Your task to perform on an android device: delete location history Image 0: 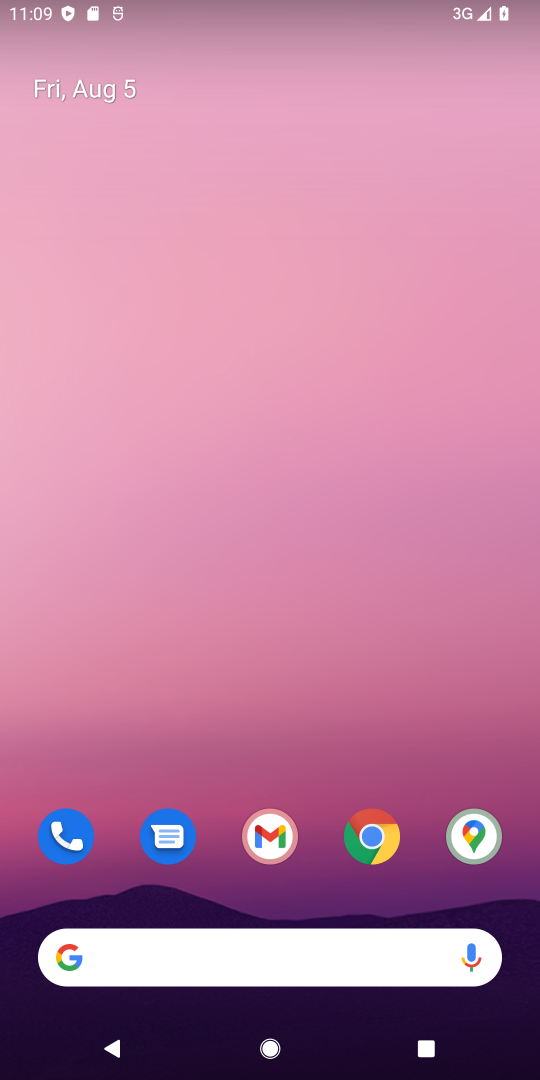
Step 0: drag from (312, 885) to (354, 219)
Your task to perform on an android device: delete location history Image 1: 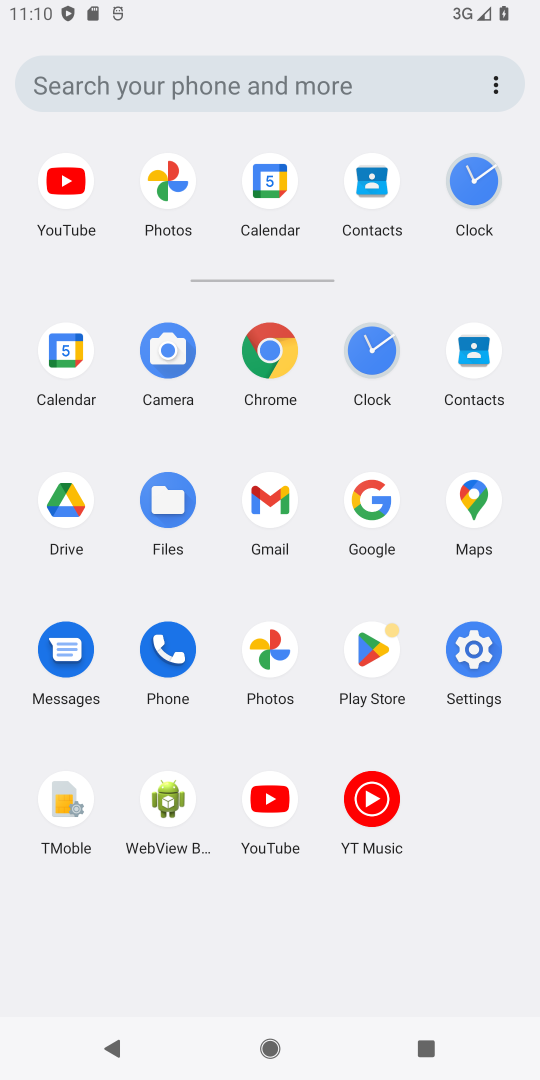
Step 1: click (484, 501)
Your task to perform on an android device: delete location history Image 2: 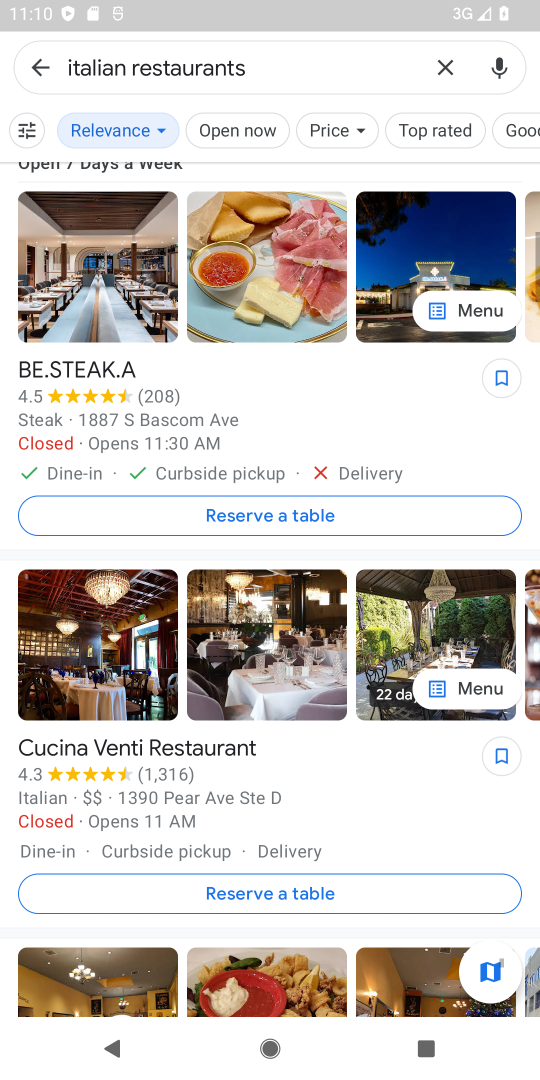
Step 2: click (37, 59)
Your task to perform on an android device: delete location history Image 3: 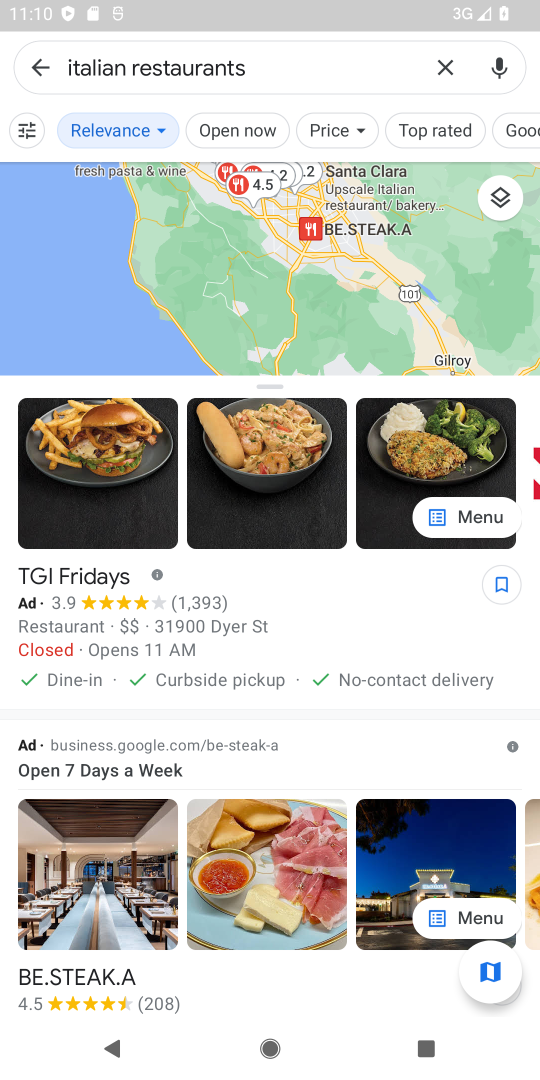
Step 3: click (45, 68)
Your task to perform on an android device: delete location history Image 4: 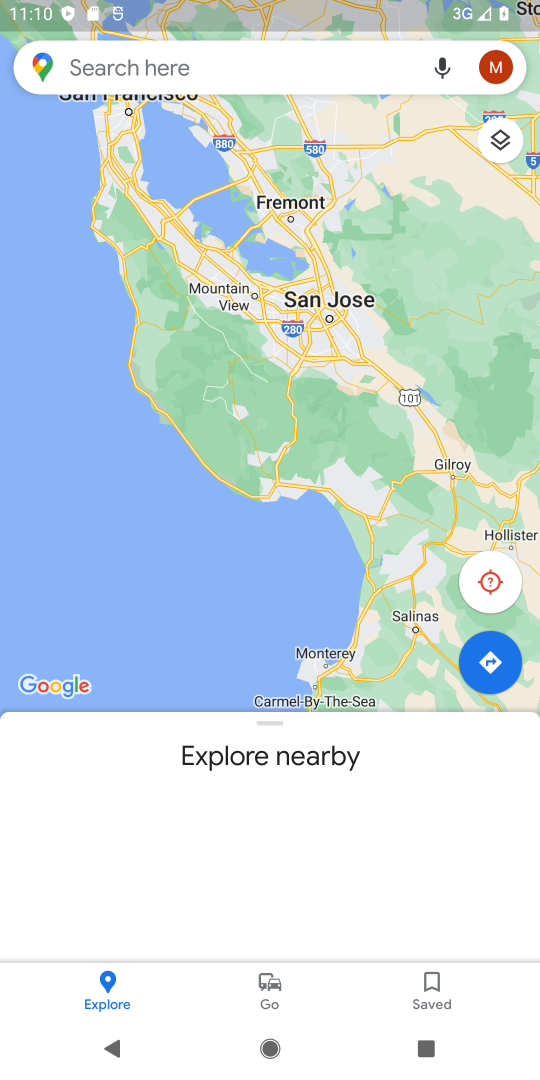
Step 4: click (483, 42)
Your task to perform on an android device: delete location history Image 5: 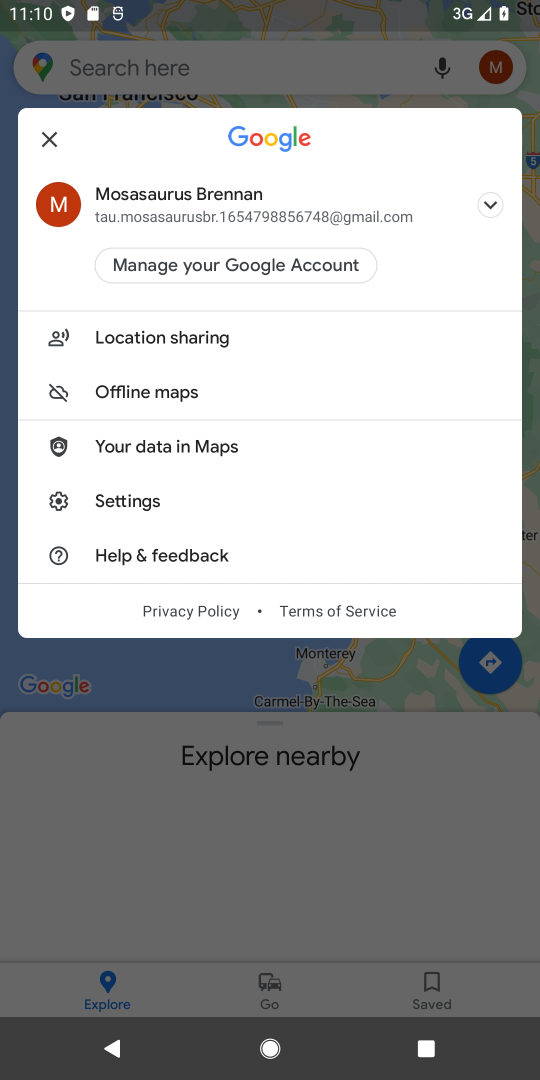
Step 5: click (159, 494)
Your task to perform on an android device: delete location history Image 6: 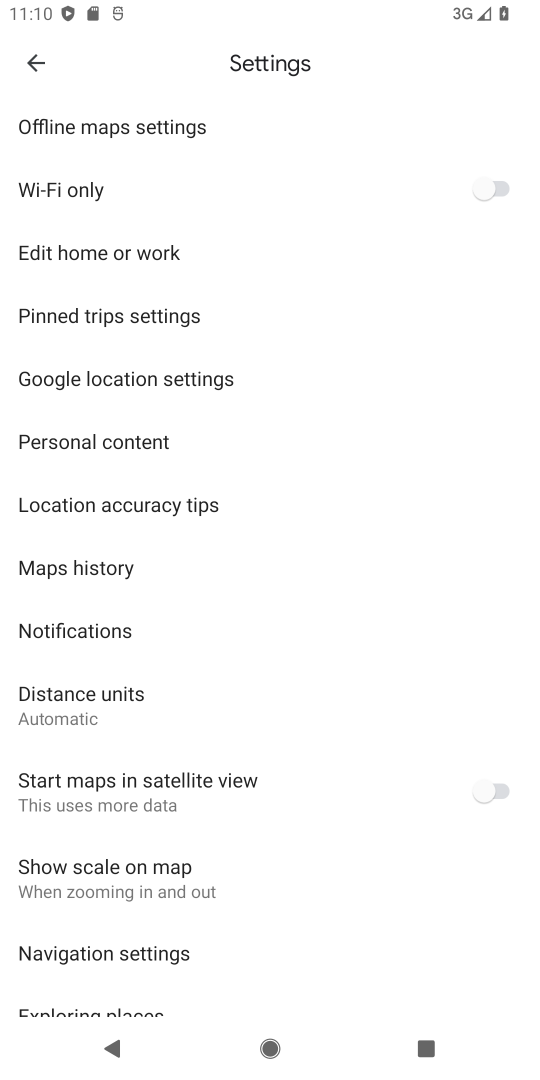
Step 6: click (102, 566)
Your task to perform on an android device: delete location history Image 7: 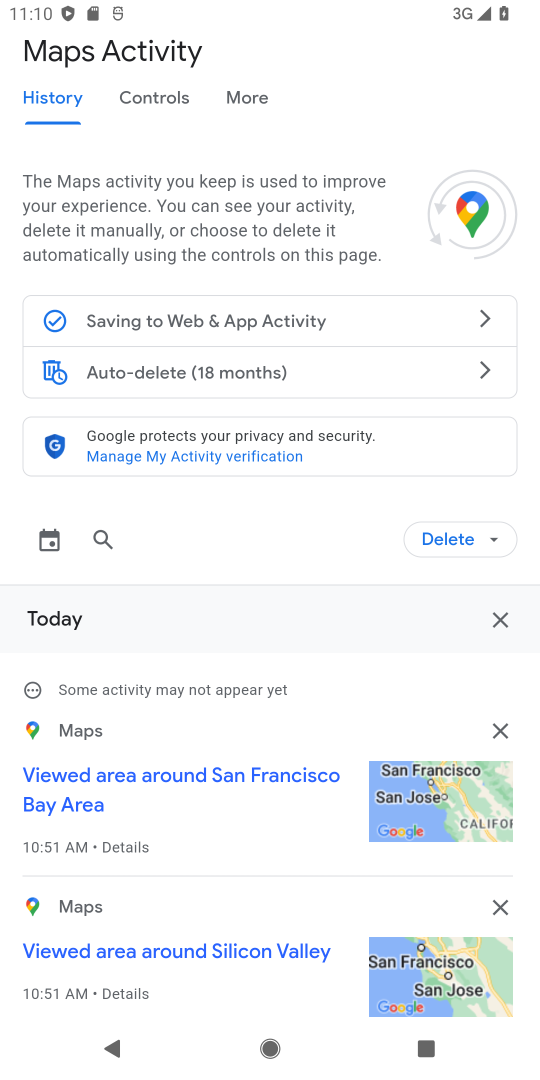
Step 7: click (472, 545)
Your task to perform on an android device: delete location history Image 8: 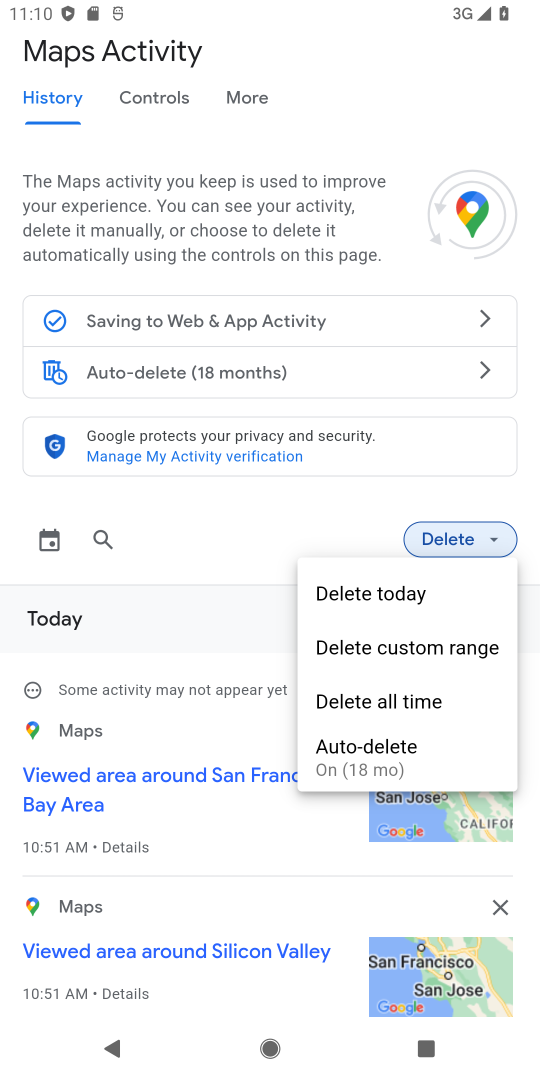
Step 8: click (397, 699)
Your task to perform on an android device: delete location history Image 9: 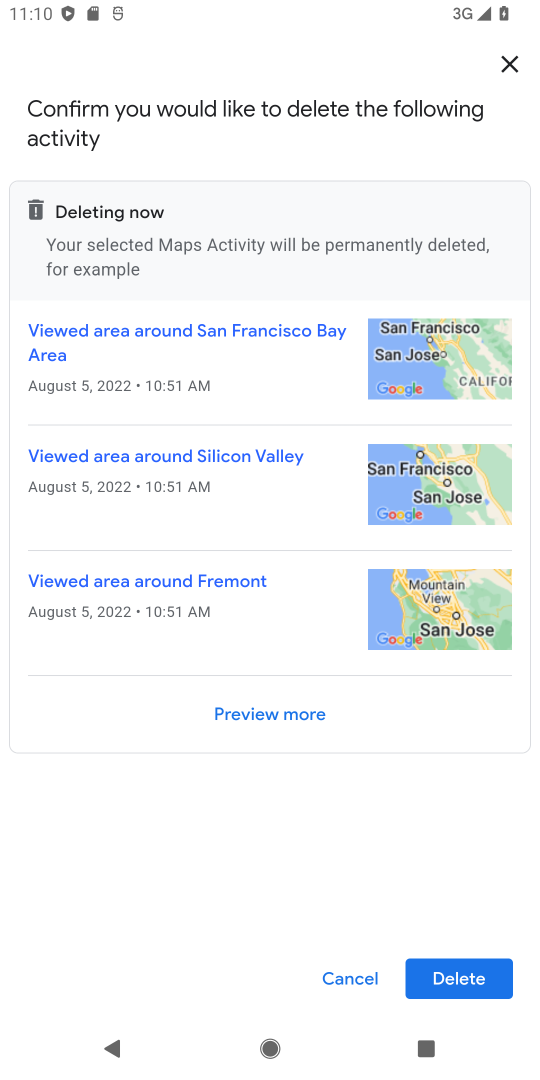
Step 9: click (469, 994)
Your task to perform on an android device: delete location history Image 10: 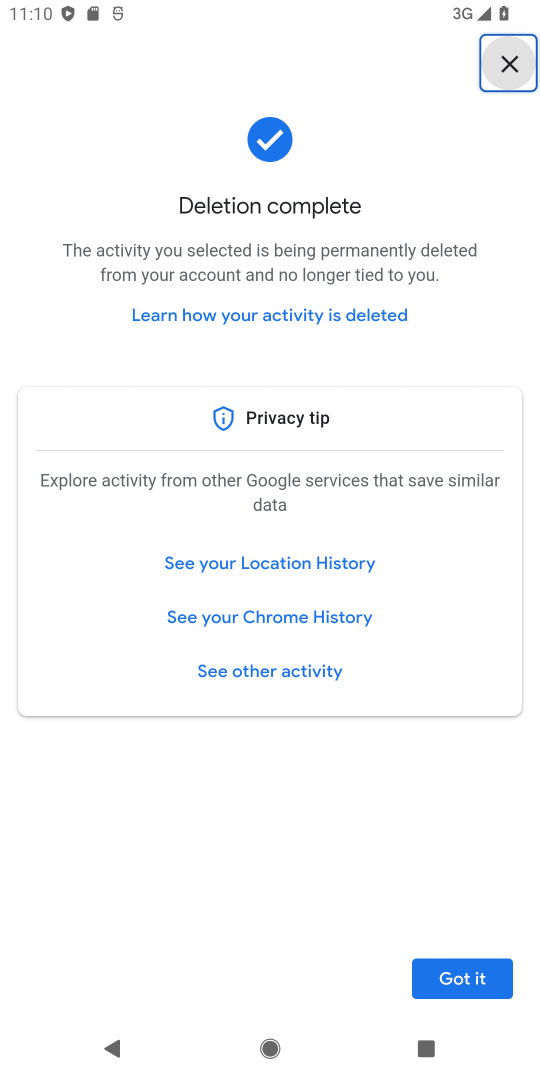
Step 10: click (460, 975)
Your task to perform on an android device: delete location history Image 11: 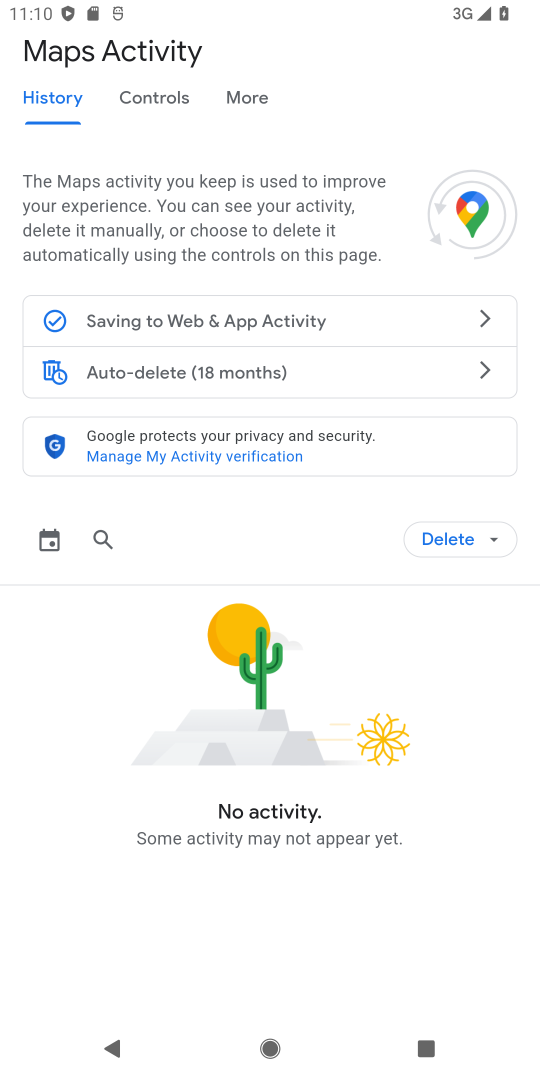
Step 11: task complete